Your task to perform on an android device: change the upload size in google photos Image 0: 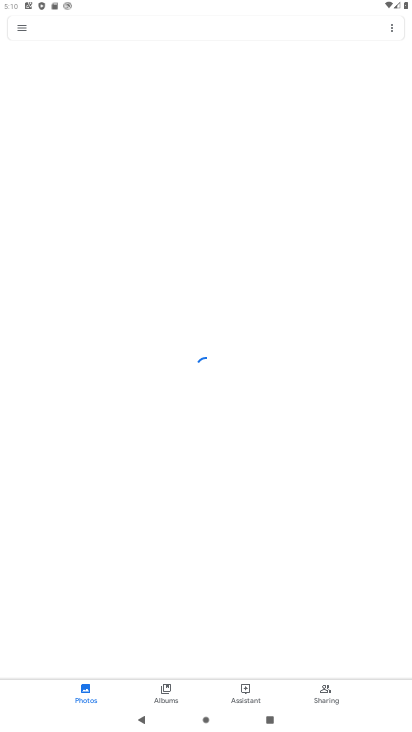
Step 0: press home button
Your task to perform on an android device: change the upload size in google photos Image 1: 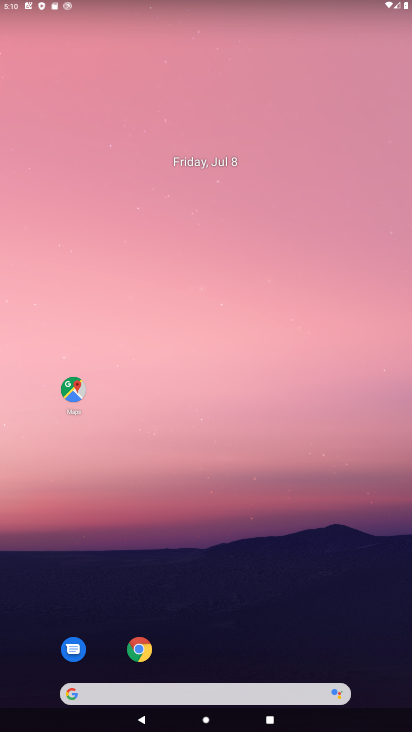
Step 1: drag from (276, 574) to (119, 81)
Your task to perform on an android device: change the upload size in google photos Image 2: 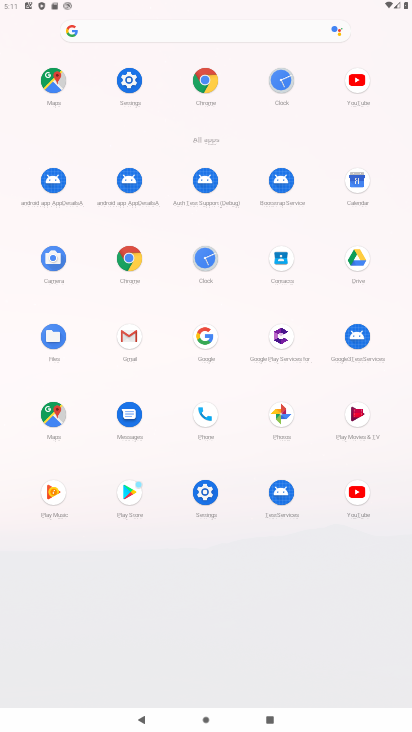
Step 2: click (279, 416)
Your task to perform on an android device: change the upload size in google photos Image 3: 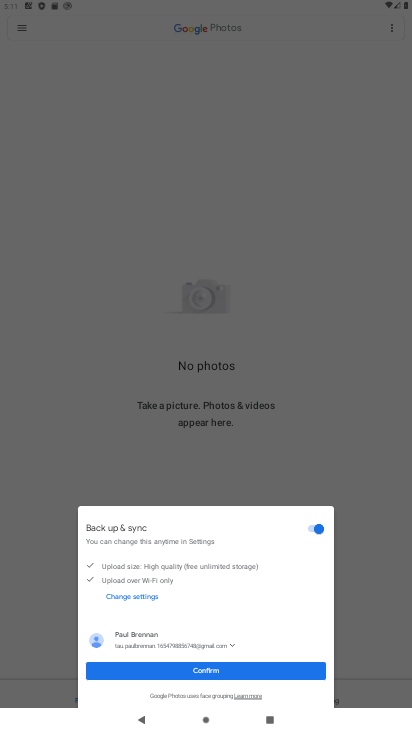
Step 3: click (236, 675)
Your task to perform on an android device: change the upload size in google photos Image 4: 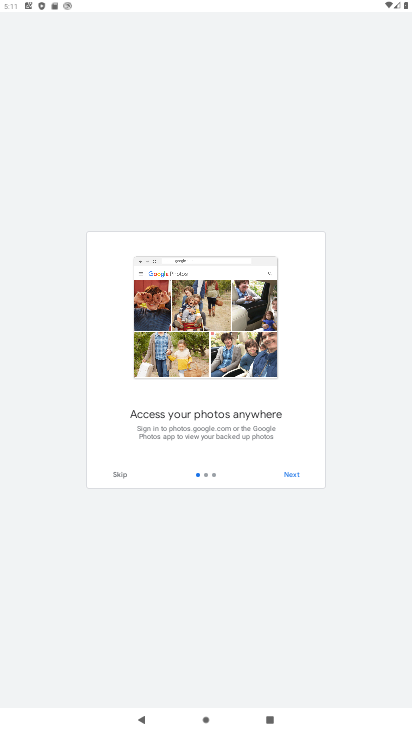
Step 4: click (287, 475)
Your task to perform on an android device: change the upload size in google photos Image 5: 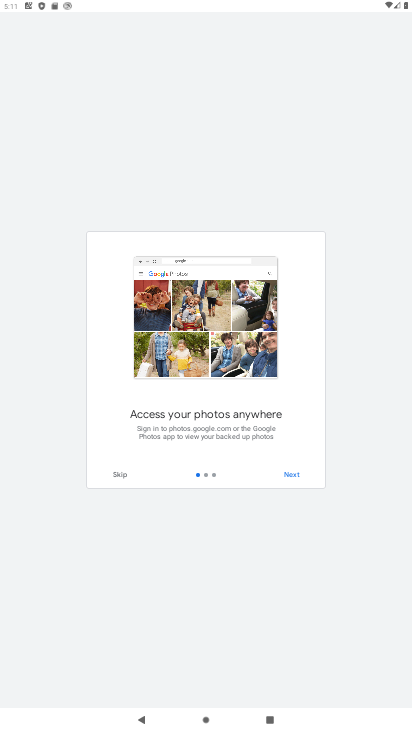
Step 5: click (287, 475)
Your task to perform on an android device: change the upload size in google photos Image 6: 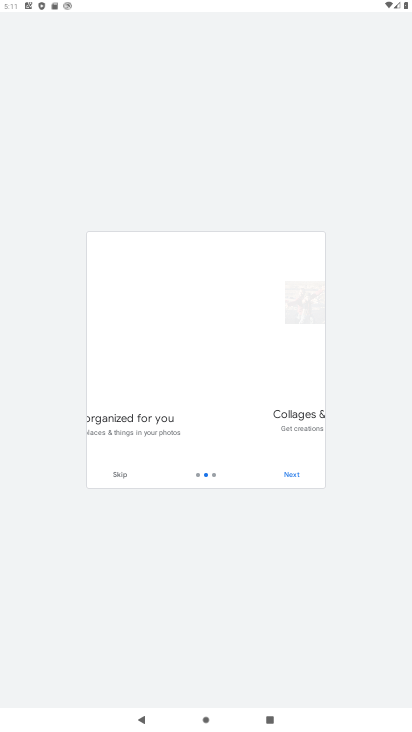
Step 6: click (287, 475)
Your task to perform on an android device: change the upload size in google photos Image 7: 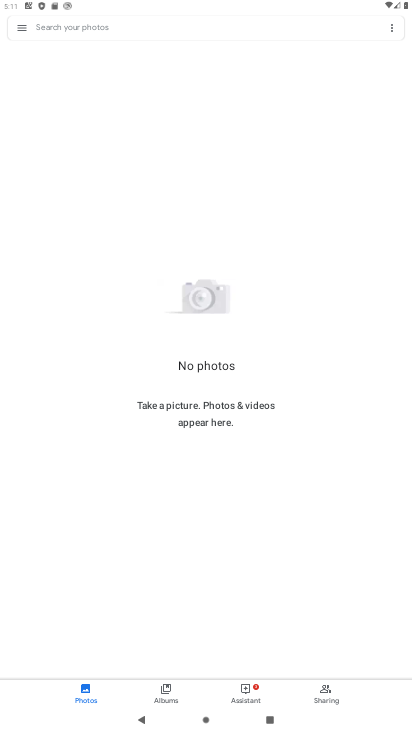
Step 7: click (17, 28)
Your task to perform on an android device: change the upload size in google photos Image 8: 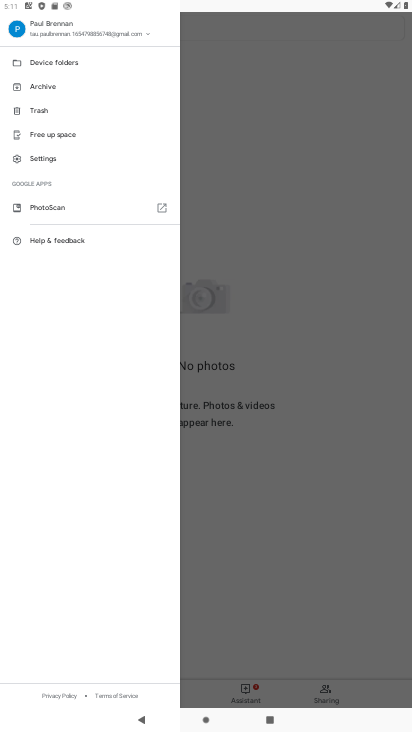
Step 8: click (52, 161)
Your task to perform on an android device: change the upload size in google photos Image 9: 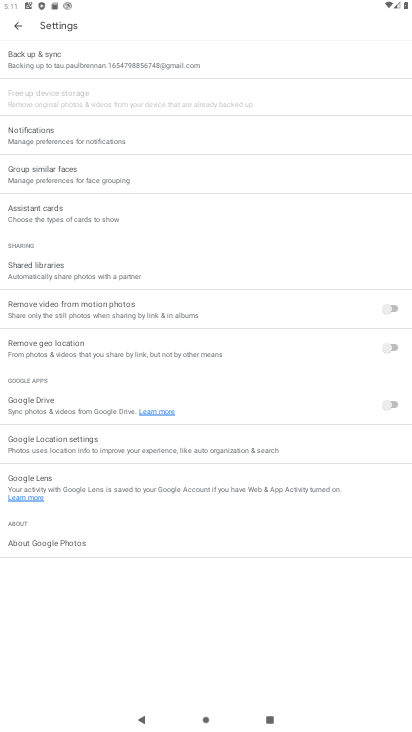
Step 9: click (130, 66)
Your task to perform on an android device: change the upload size in google photos Image 10: 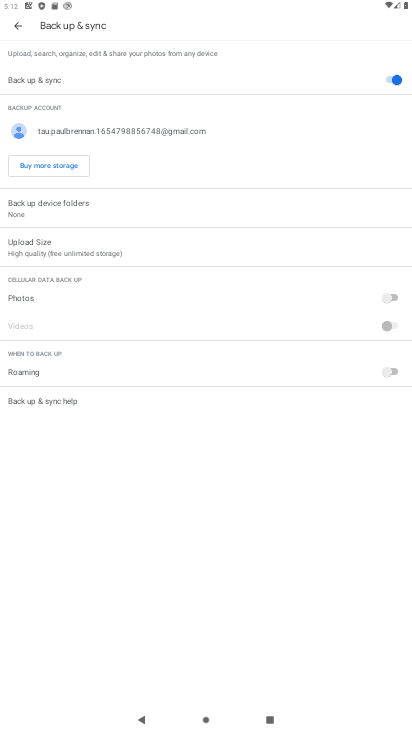
Step 10: click (89, 247)
Your task to perform on an android device: change the upload size in google photos Image 11: 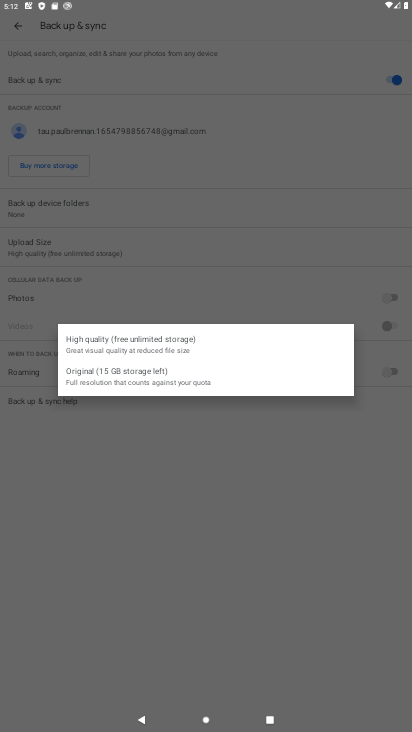
Step 11: click (144, 382)
Your task to perform on an android device: change the upload size in google photos Image 12: 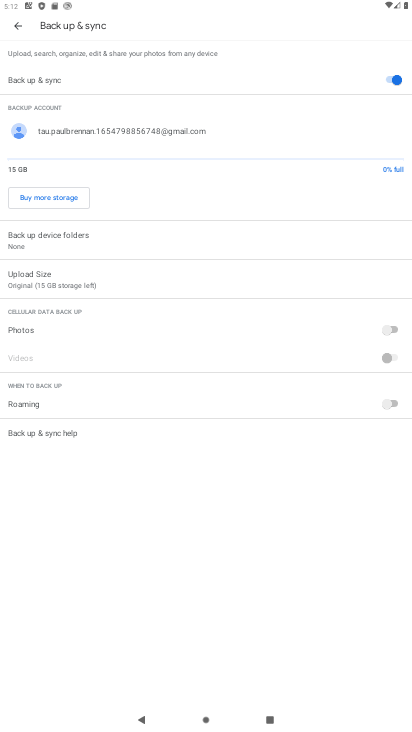
Step 12: task complete